Your task to perform on an android device: find photos in the google photos app Image 0: 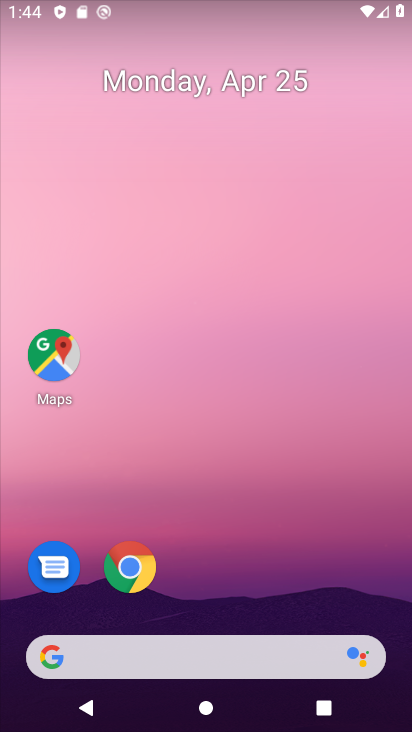
Step 0: drag from (252, 575) to (313, 111)
Your task to perform on an android device: find photos in the google photos app Image 1: 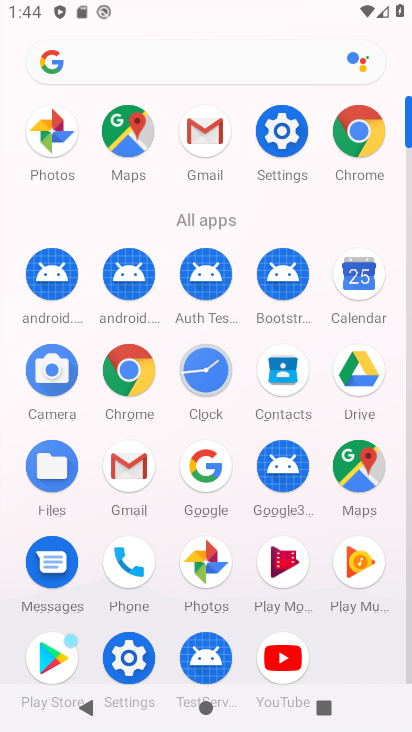
Step 1: click (60, 141)
Your task to perform on an android device: find photos in the google photos app Image 2: 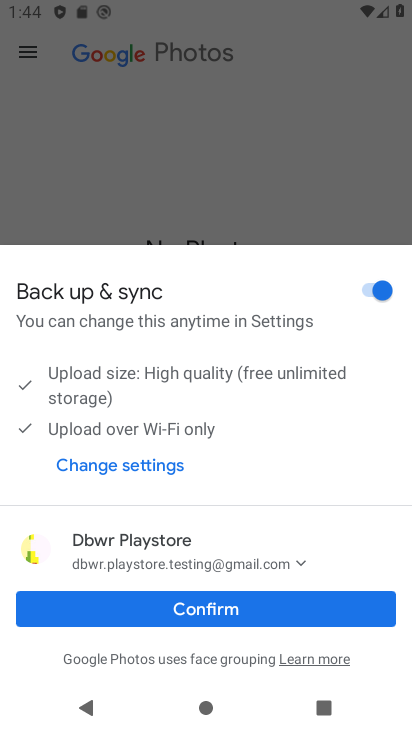
Step 2: click (207, 608)
Your task to perform on an android device: find photos in the google photos app Image 3: 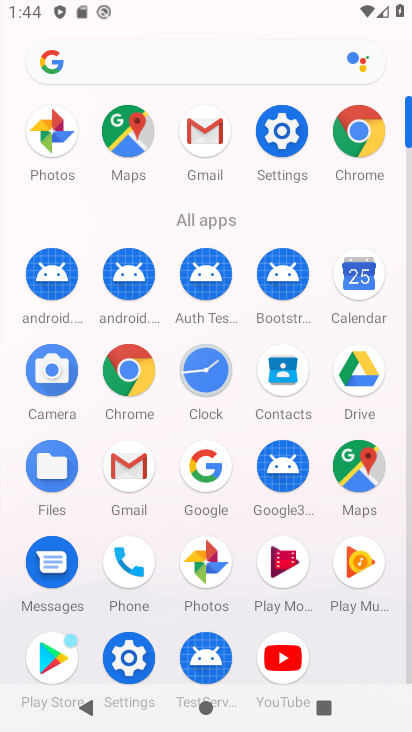
Step 3: click (43, 142)
Your task to perform on an android device: find photos in the google photos app Image 4: 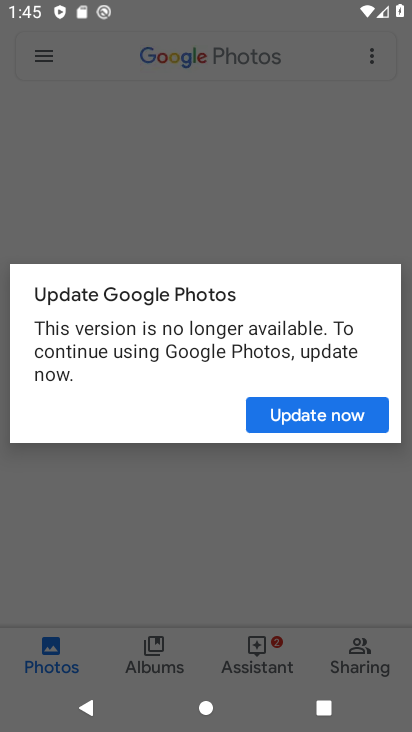
Step 4: click (302, 427)
Your task to perform on an android device: find photos in the google photos app Image 5: 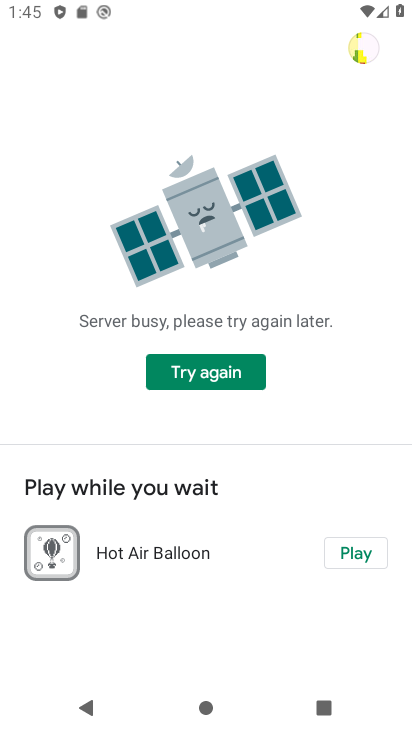
Step 5: task complete